Your task to perform on an android device: Open Android settings Image 0: 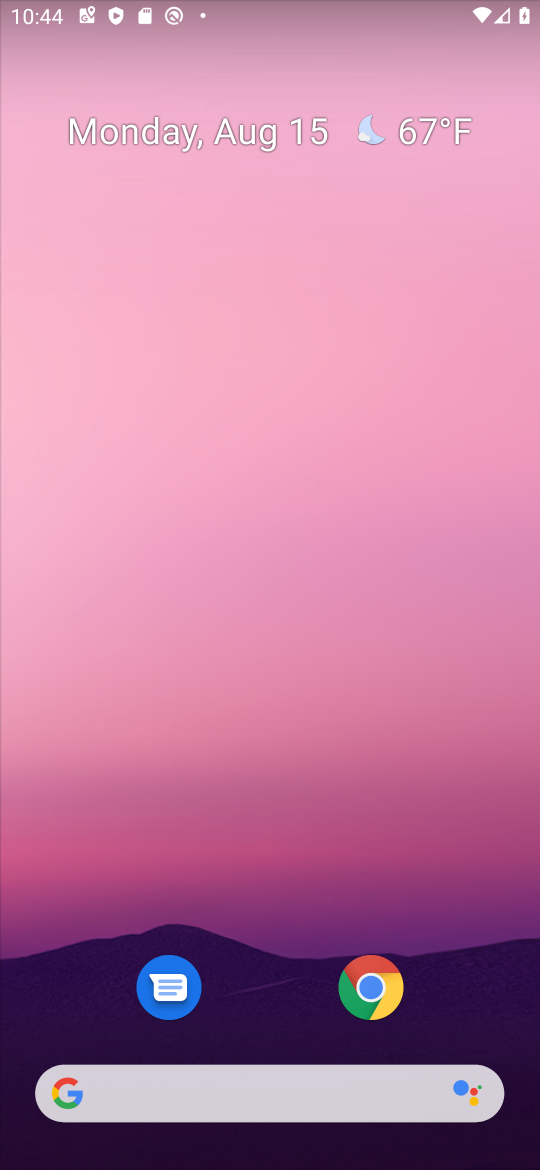
Step 0: drag from (275, 1060) to (204, 81)
Your task to perform on an android device: Open Android settings Image 1: 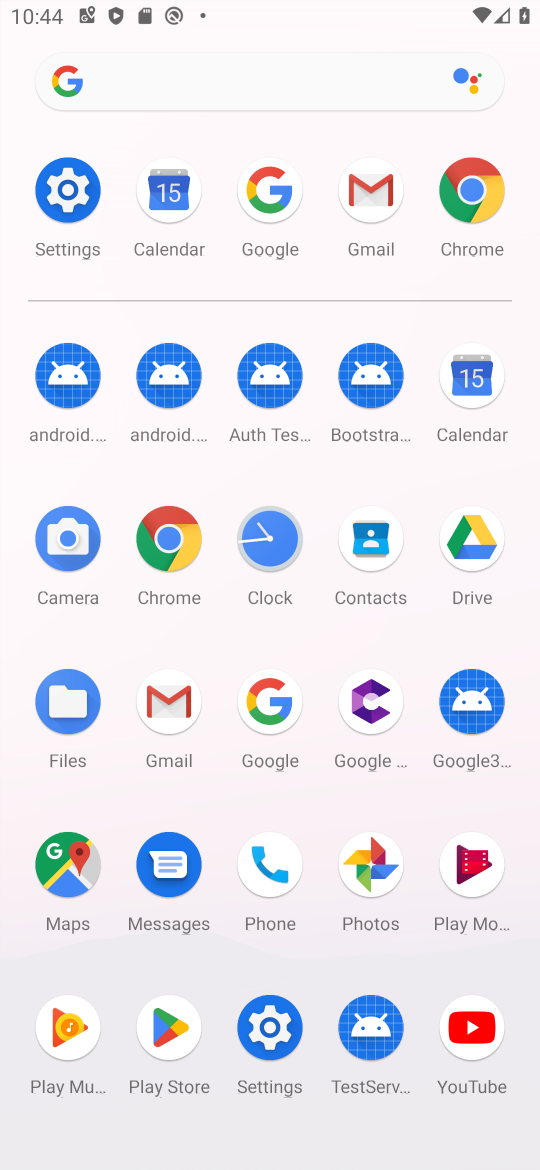
Step 1: click (286, 1056)
Your task to perform on an android device: Open Android settings Image 2: 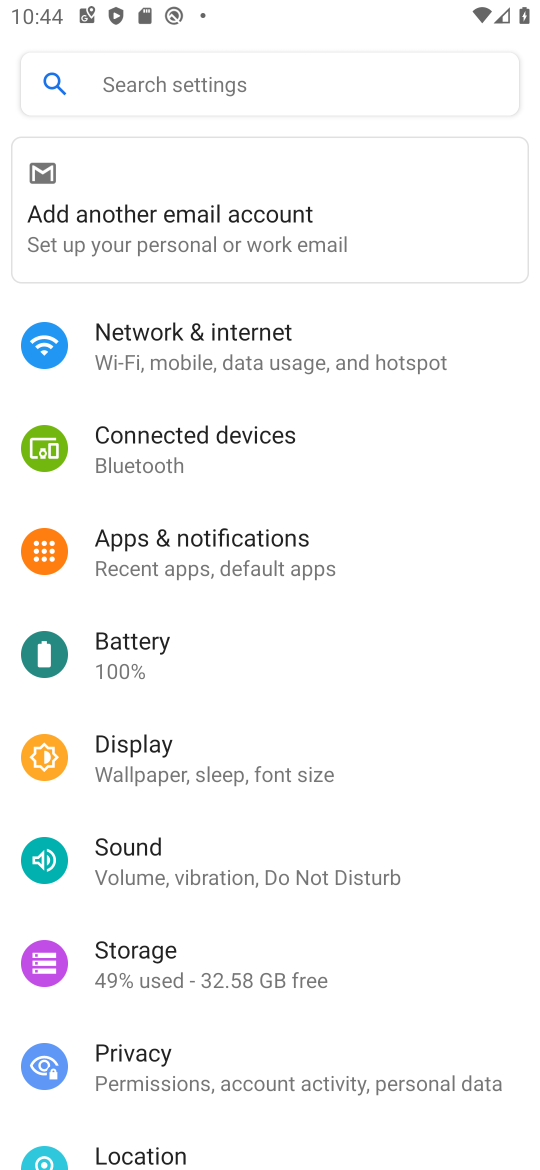
Step 2: task complete